Your task to perform on an android device: What is the news today? Image 0: 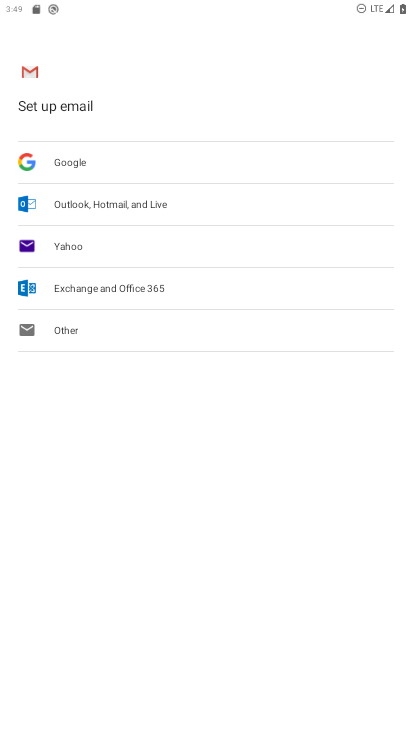
Step 0: press home button
Your task to perform on an android device: What is the news today? Image 1: 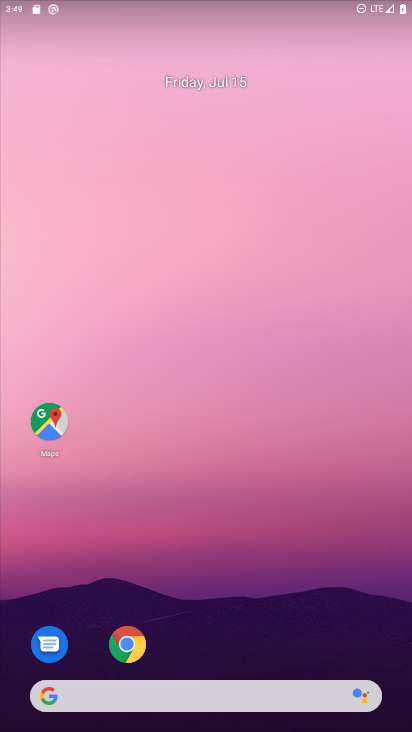
Step 1: click (105, 685)
Your task to perform on an android device: What is the news today? Image 2: 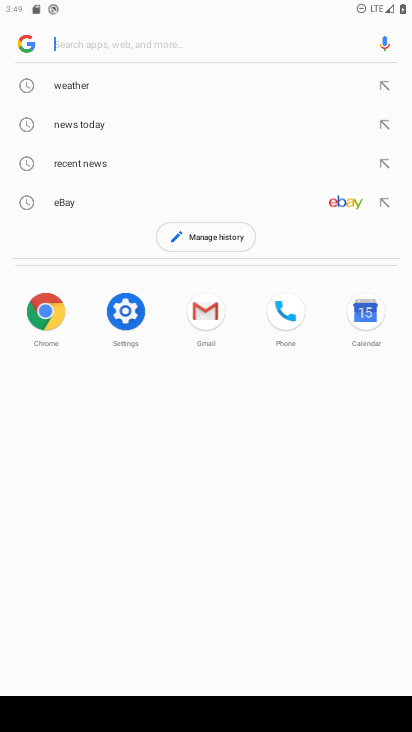
Step 2: click (106, 128)
Your task to perform on an android device: What is the news today? Image 3: 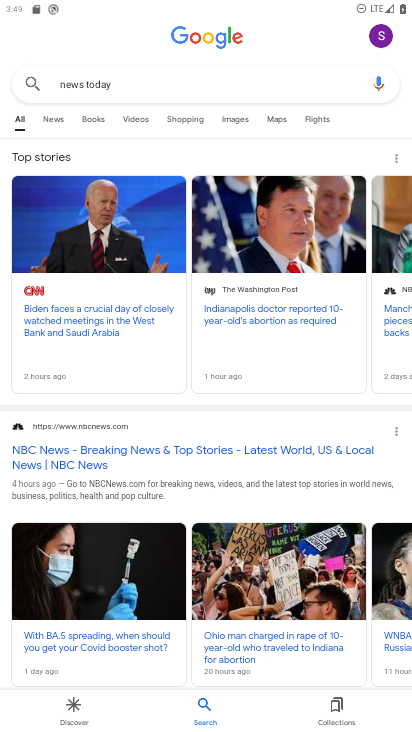
Step 3: task complete